Your task to perform on an android device: Go to network settings Image 0: 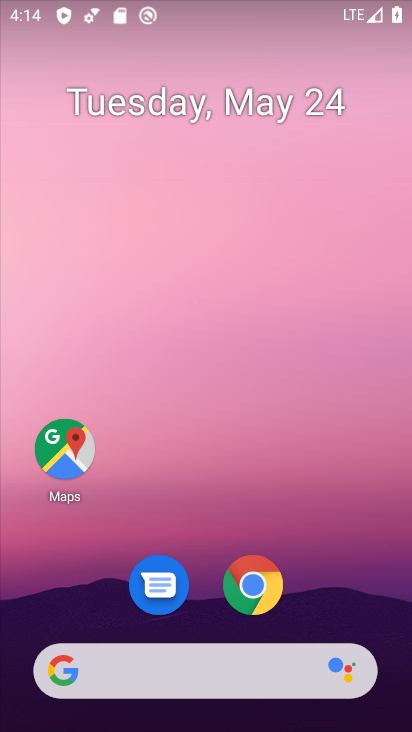
Step 0: drag from (349, 568) to (327, 34)
Your task to perform on an android device: Go to network settings Image 1: 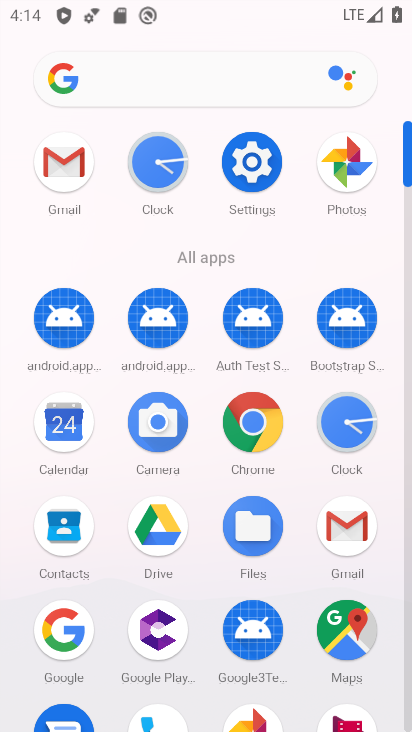
Step 1: click (259, 151)
Your task to perform on an android device: Go to network settings Image 2: 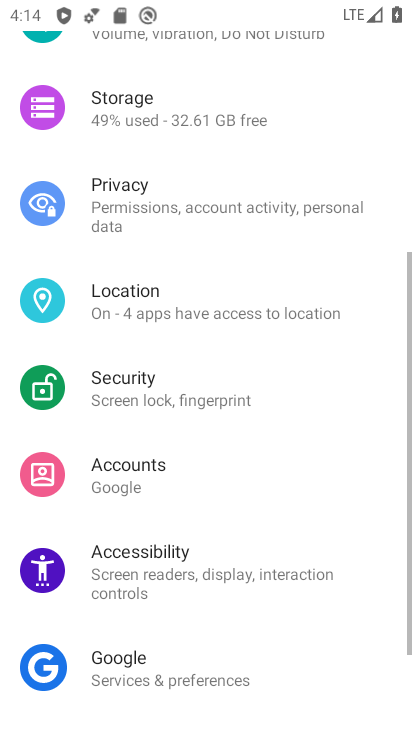
Step 2: drag from (256, 276) to (235, 538)
Your task to perform on an android device: Go to network settings Image 3: 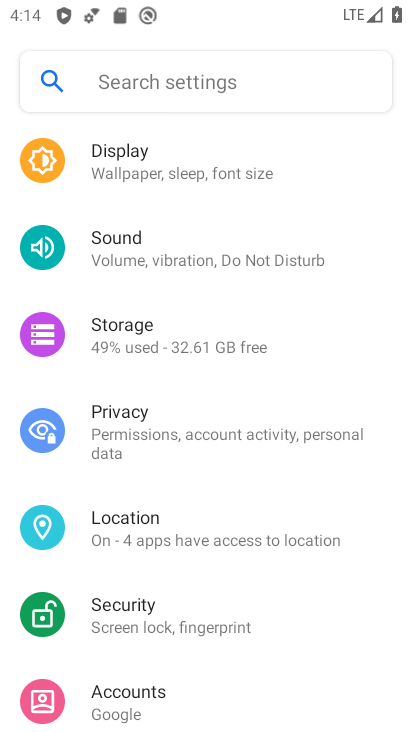
Step 3: drag from (266, 244) to (237, 561)
Your task to perform on an android device: Go to network settings Image 4: 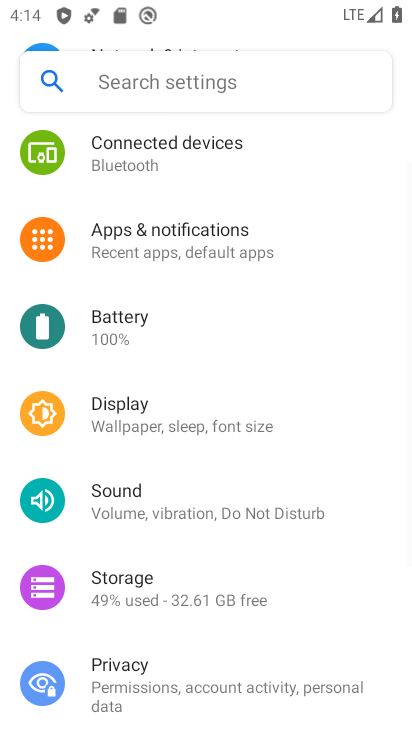
Step 4: drag from (245, 331) to (212, 545)
Your task to perform on an android device: Go to network settings Image 5: 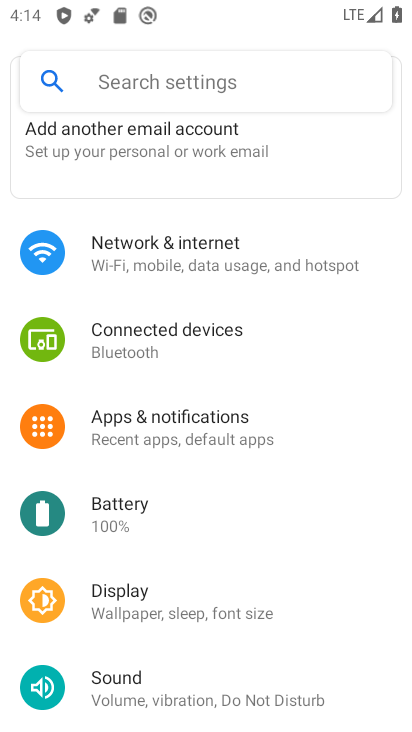
Step 5: click (223, 247)
Your task to perform on an android device: Go to network settings Image 6: 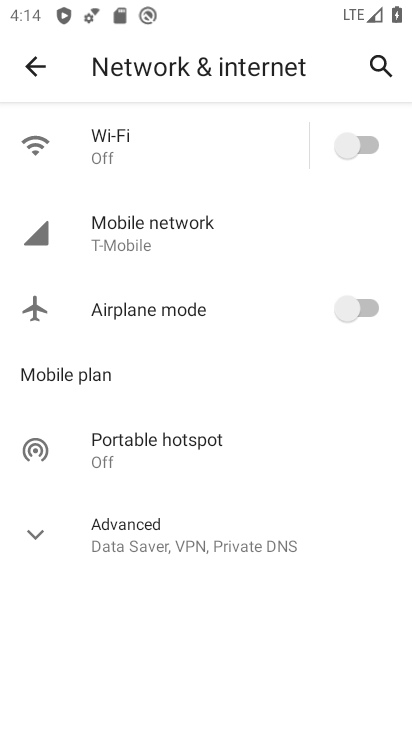
Step 6: task complete